Your task to perform on an android device: When is my next meeting? Image 0: 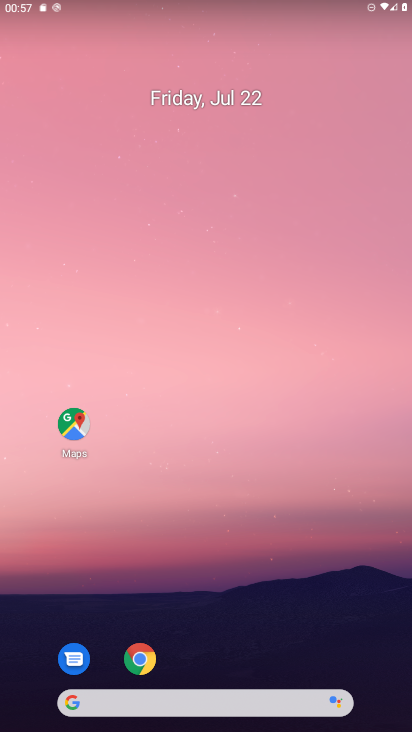
Step 0: drag from (205, 699) to (137, 262)
Your task to perform on an android device: When is my next meeting? Image 1: 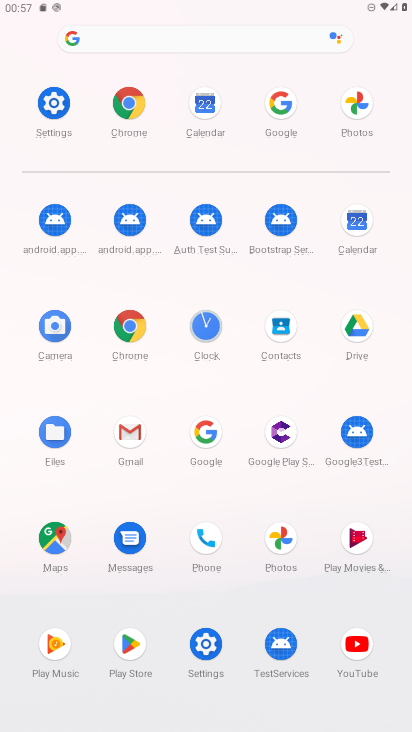
Step 1: click (356, 222)
Your task to perform on an android device: When is my next meeting? Image 2: 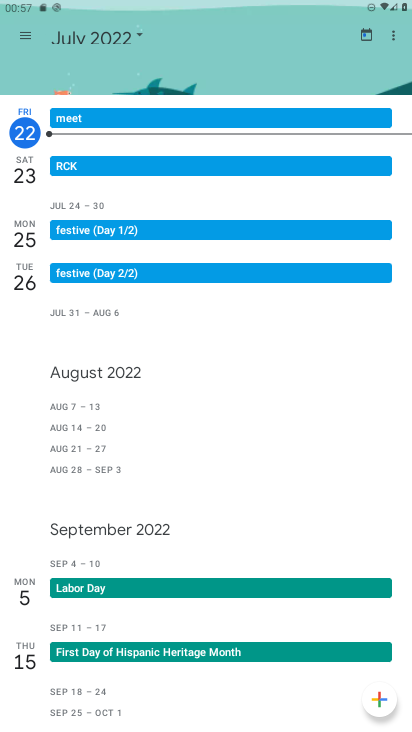
Step 2: click (368, 31)
Your task to perform on an android device: When is my next meeting? Image 3: 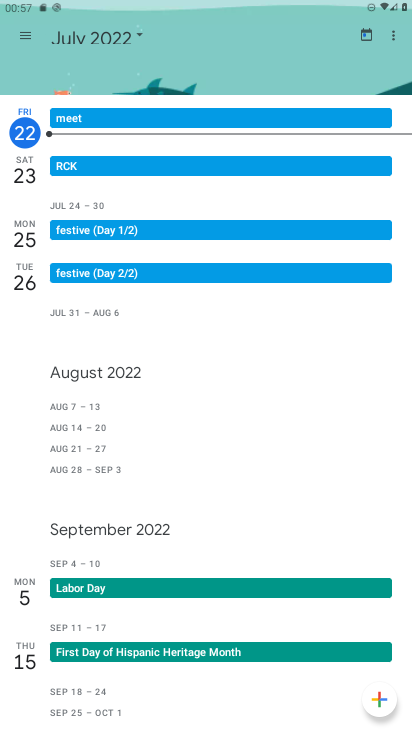
Step 3: click (138, 32)
Your task to perform on an android device: When is my next meeting? Image 4: 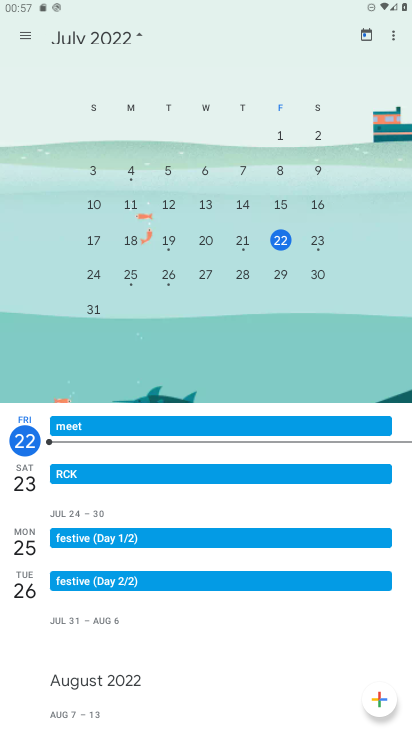
Step 4: click (312, 241)
Your task to perform on an android device: When is my next meeting? Image 5: 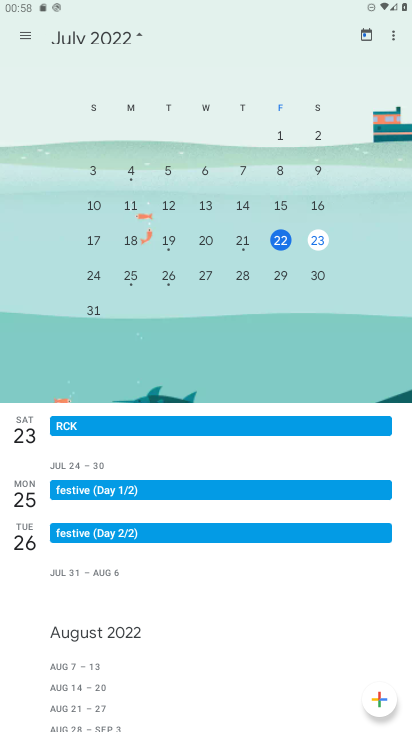
Step 5: click (26, 34)
Your task to perform on an android device: When is my next meeting? Image 6: 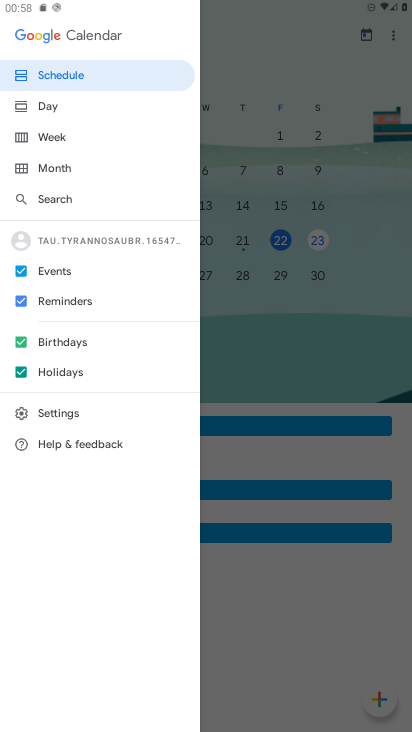
Step 6: click (43, 74)
Your task to perform on an android device: When is my next meeting? Image 7: 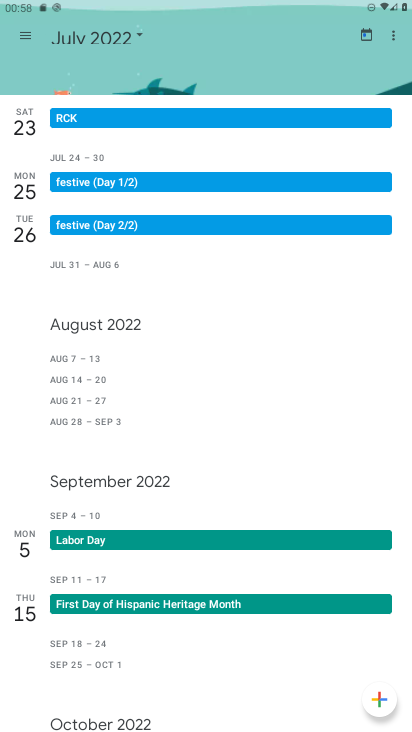
Step 7: task complete